Your task to perform on an android device: open a new tab in the chrome app Image 0: 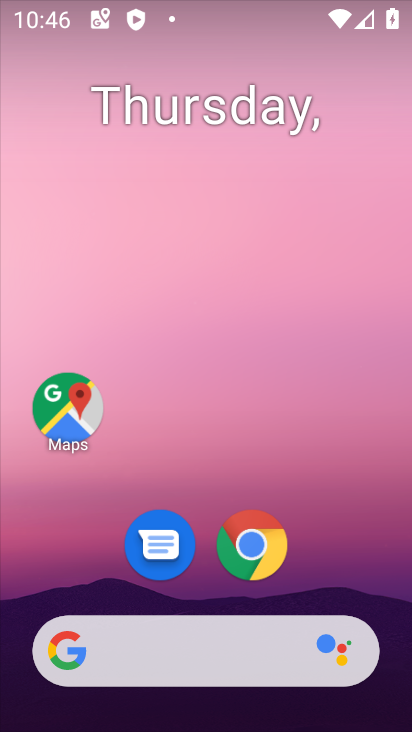
Step 0: click (252, 545)
Your task to perform on an android device: open a new tab in the chrome app Image 1: 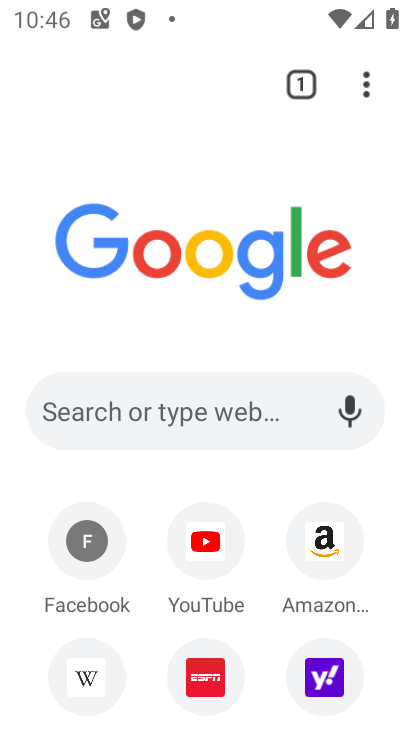
Step 1: click (366, 86)
Your task to perform on an android device: open a new tab in the chrome app Image 2: 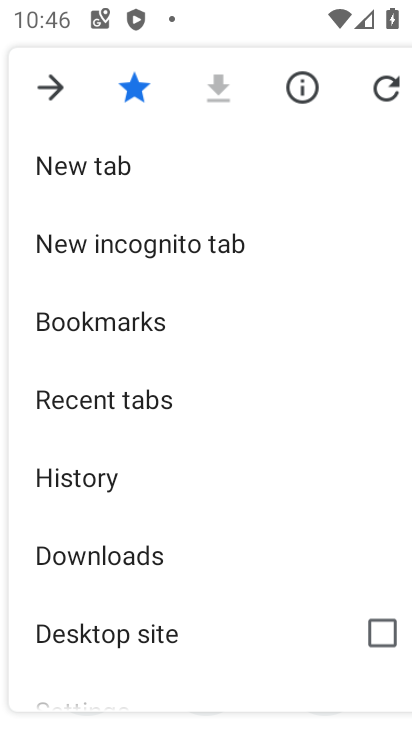
Step 2: click (88, 169)
Your task to perform on an android device: open a new tab in the chrome app Image 3: 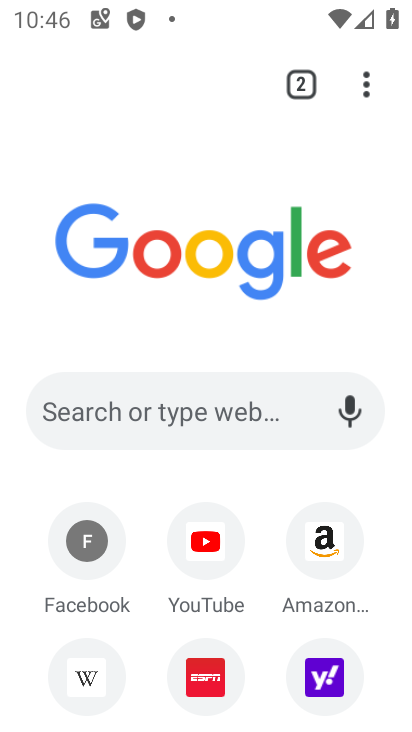
Step 3: task complete